Your task to perform on an android device: Open Google Chrome and click the shortcut for Amazon.com Image 0: 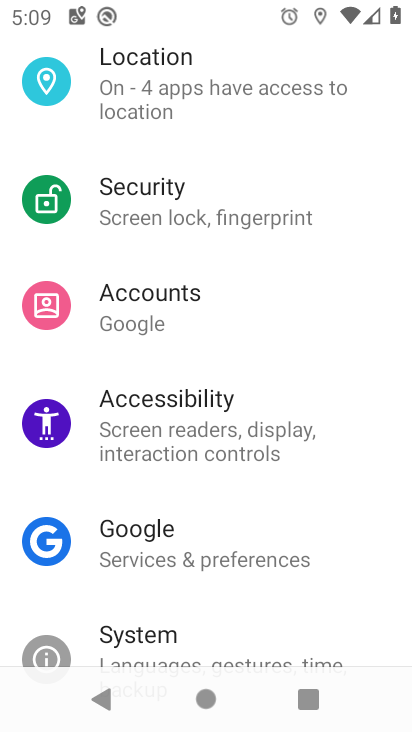
Step 0: press home button
Your task to perform on an android device: Open Google Chrome and click the shortcut for Amazon.com Image 1: 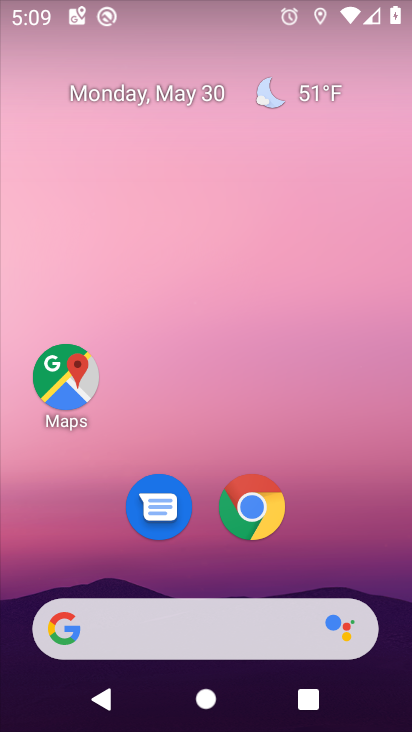
Step 1: click (259, 495)
Your task to perform on an android device: Open Google Chrome and click the shortcut for Amazon.com Image 2: 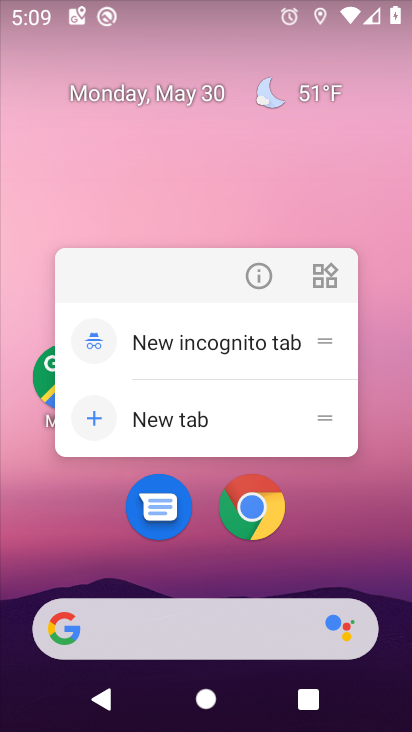
Step 2: click (259, 495)
Your task to perform on an android device: Open Google Chrome and click the shortcut for Amazon.com Image 3: 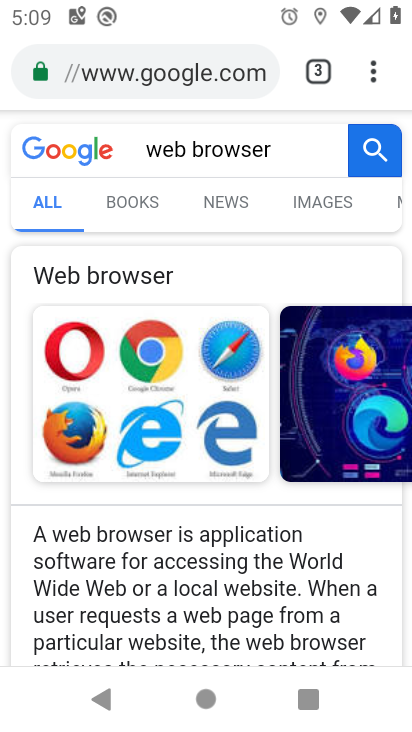
Step 3: drag from (370, 73) to (163, 148)
Your task to perform on an android device: Open Google Chrome and click the shortcut for Amazon.com Image 4: 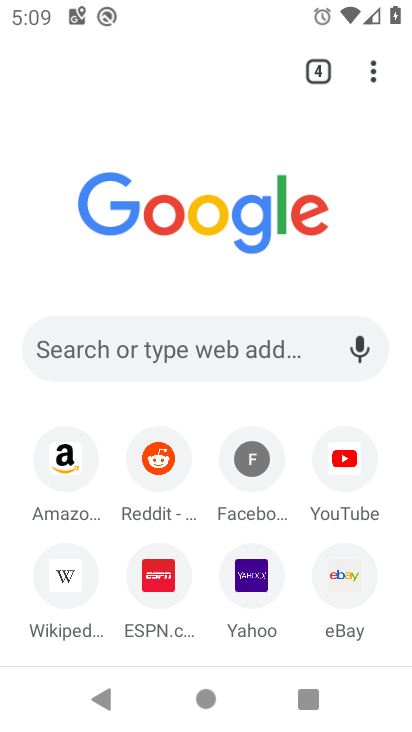
Step 4: click (80, 473)
Your task to perform on an android device: Open Google Chrome and click the shortcut for Amazon.com Image 5: 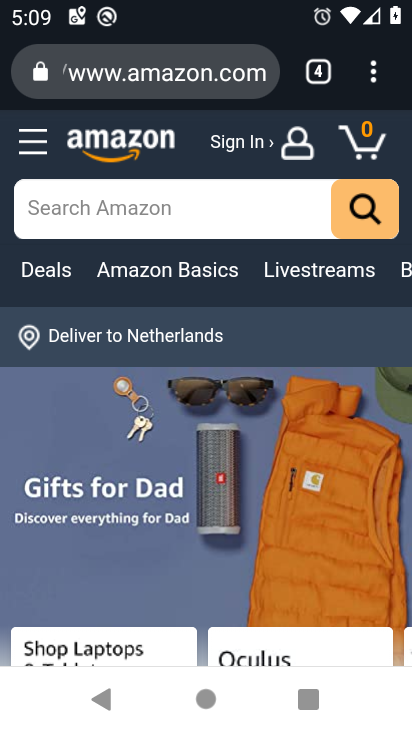
Step 5: task complete